Your task to perform on an android device: Open sound settings Image 0: 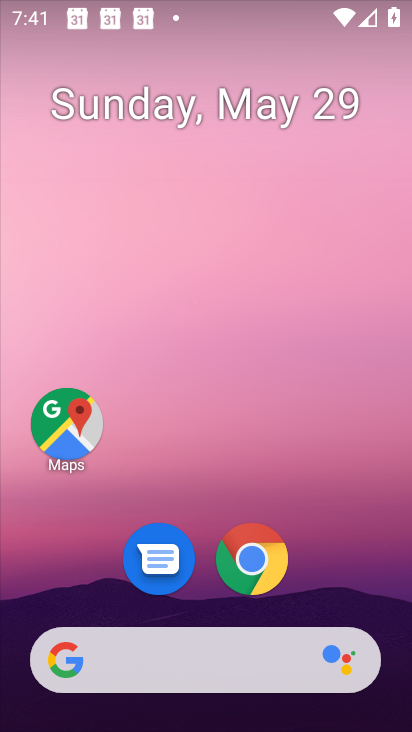
Step 0: drag from (360, 594) to (360, 284)
Your task to perform on an android device: Open sound settings Image 1: 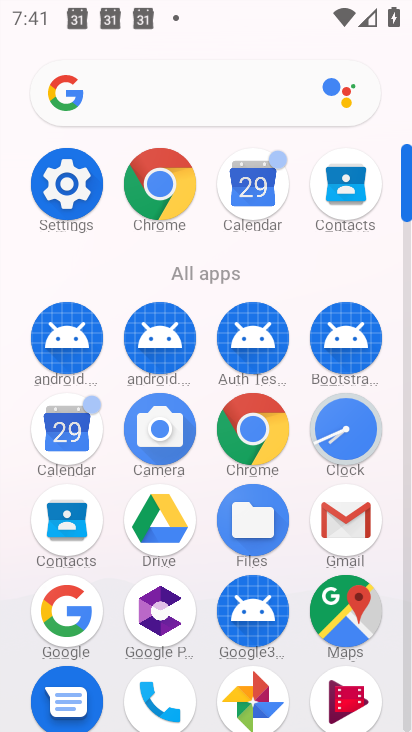
Step 1: click (76, 196)
Your task to perform on an android device: Open sound settings Image 2: 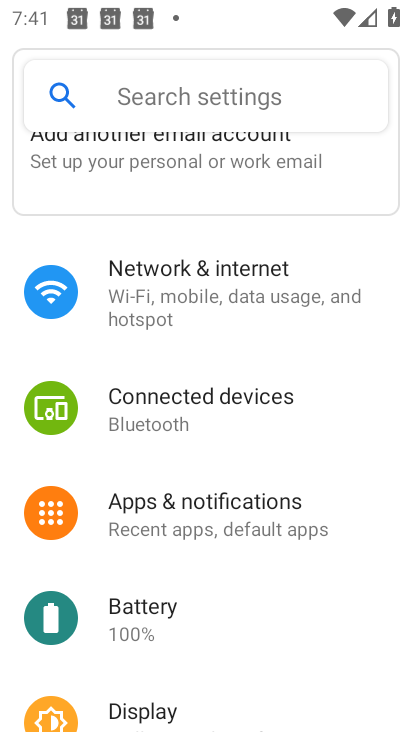
Step 2: drag from (375, 577) to (373, 516)
Your task to perform on an android device: Open sound settings Image 3: 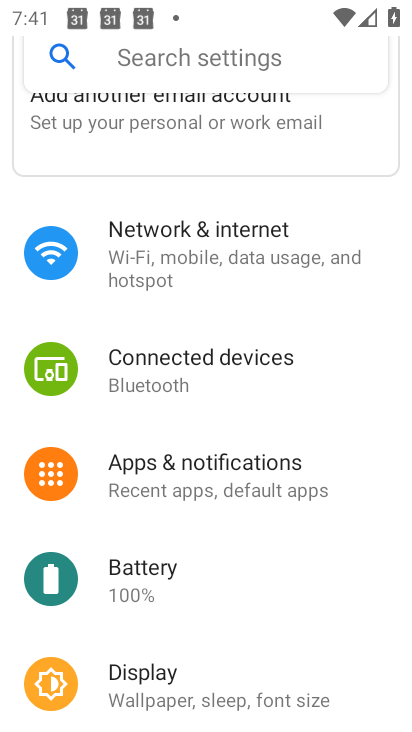
Step 3: drag from (378, 634) to (376, 558)
Your task to perform on an android device: Open sound settings Image 4: 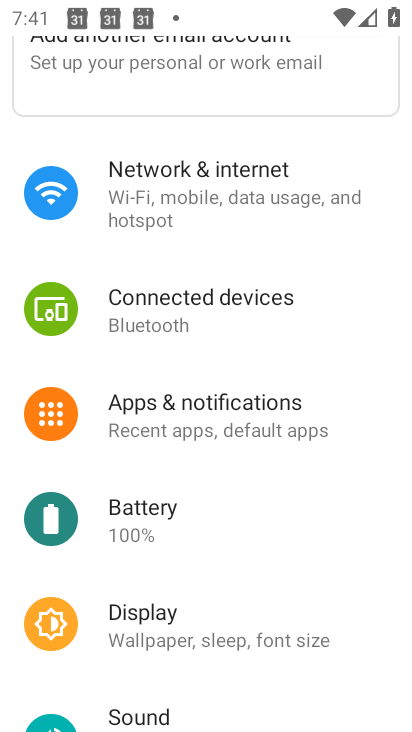
Step 4: drag from (388, 647) to (390, 582)
Your task to perform on an android device: Open sound settings Image 5: 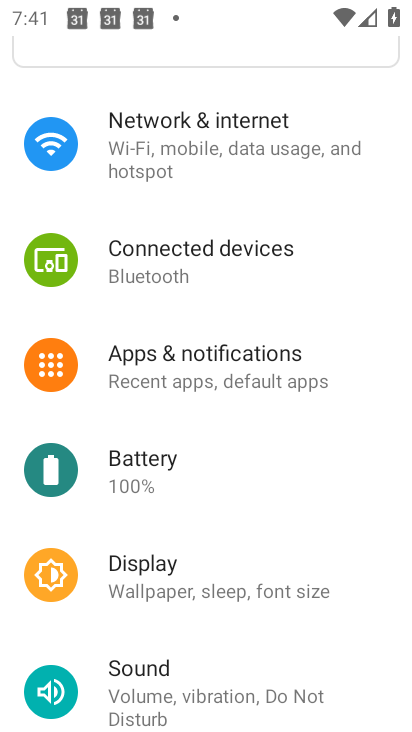
Step 5: drag from (382, 646) to (391, 560)
Your task to perform on an android device: Open sound settings Image 6: 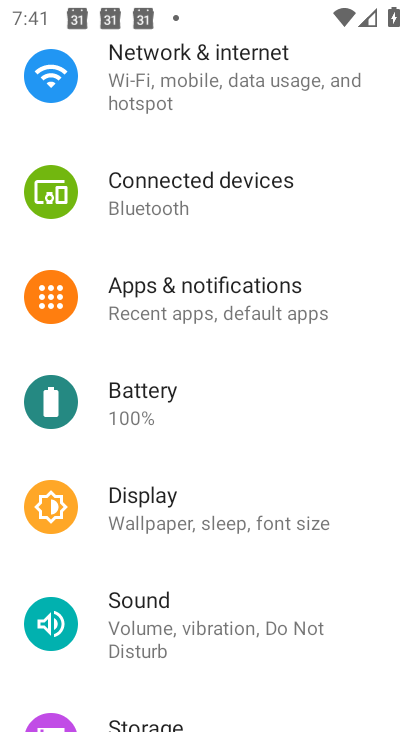
Step 6: drag from (383, 625) to (383, 547)
Your task to perform on an android device: Open sound settings Image 7: 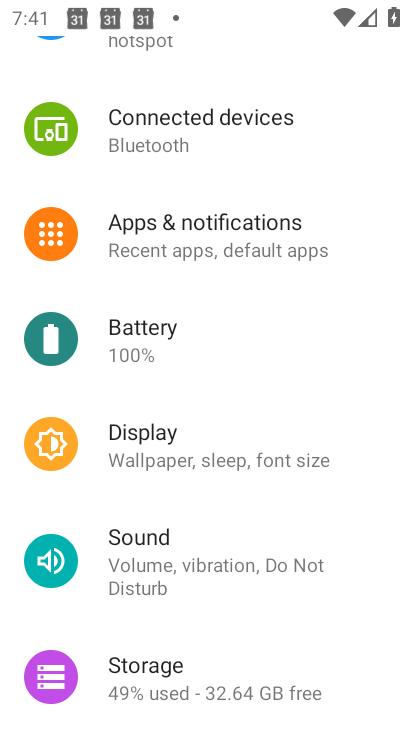
Step 7: drag from (390, 628) to (386, 542)
Your task to perform on an android device: Open sound settings Image 8: 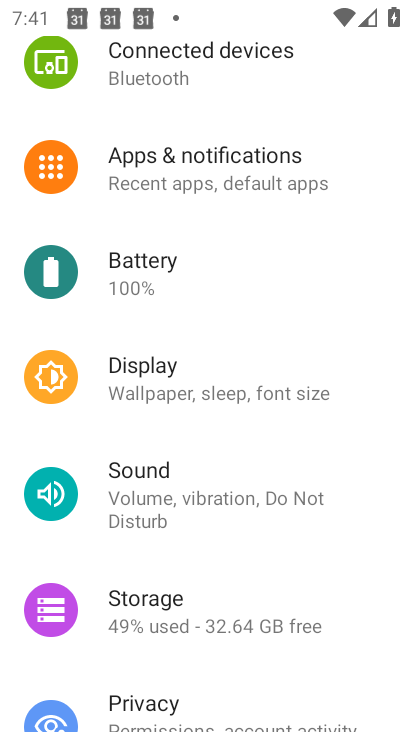
Step 8: drag from (388, 623) to (394, 544)
Your task to perform on an android device: Open sound settings Image 9: 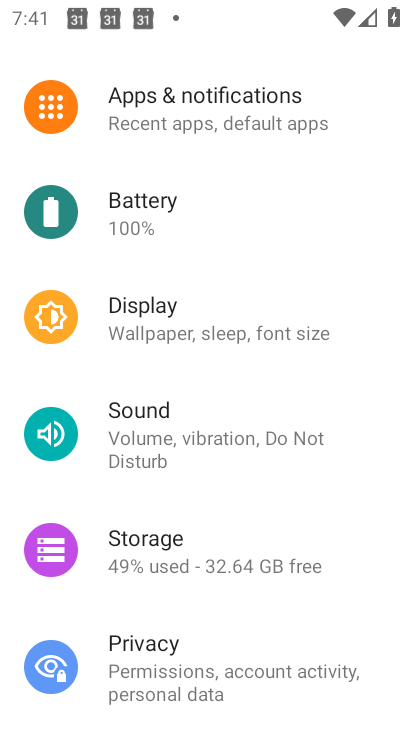
Step 9: drag from (383, 616) to (377, 523)
Your task to perform on an android device: Open sound settings Image 10: 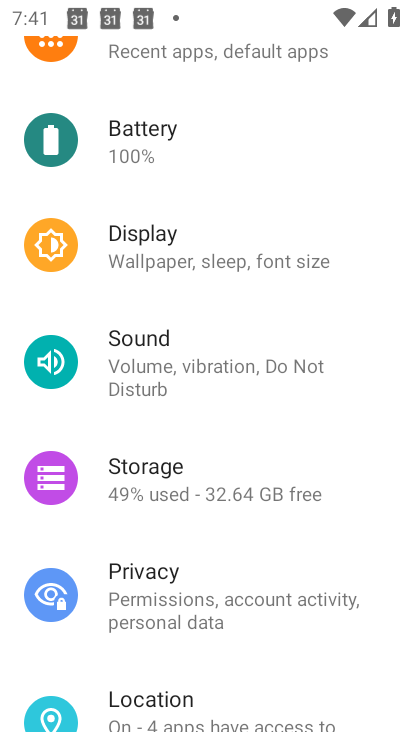
Step 10: drag from (375, 607) to (360, 511)
Your task to perform on an android device: Open sound settings Image 11: 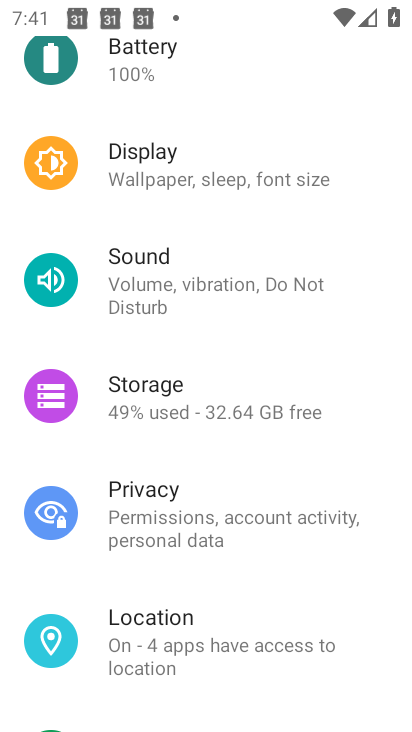
Step 11: drag from (377, 617) to (376, 491)
Your task to perform on an android device: Open sound settings Image 12: 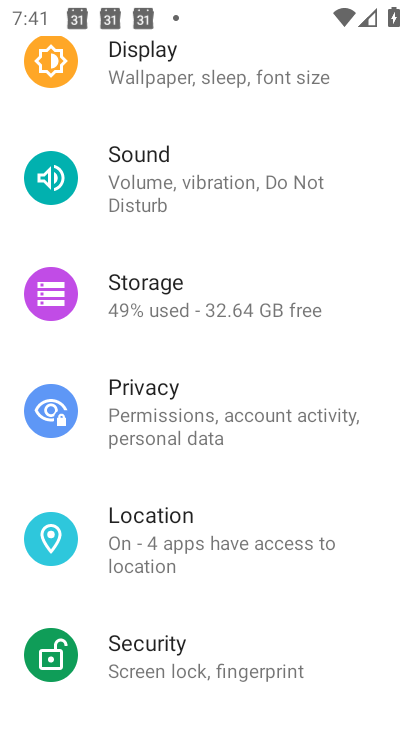
Step 12: drag from (357, 566) to (362, 478)
Your task to perform on an android device: Open sound settings Image 13: 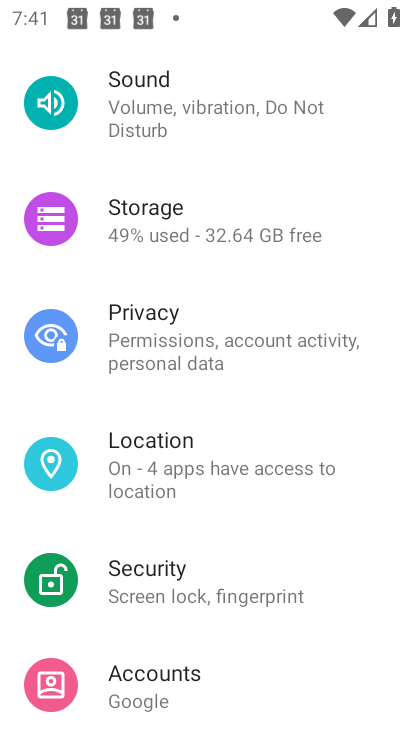
Step 13: click (190, 103)
Your task to perform on an android device: Open sound settings Image 14: 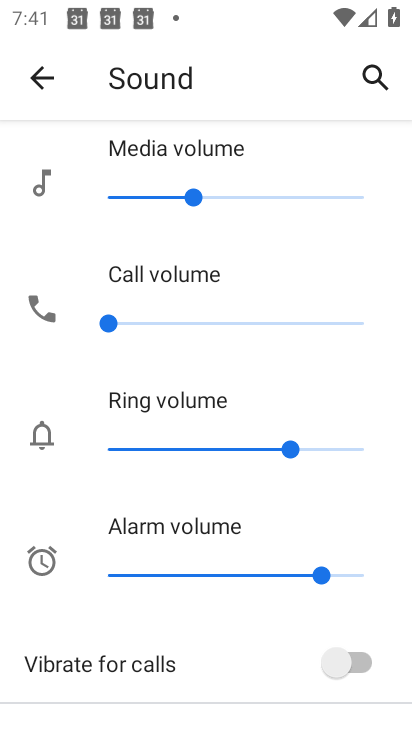
Step 14: task complete